Your task to perform on an android device: Open Chrome and go to settings Image 0: 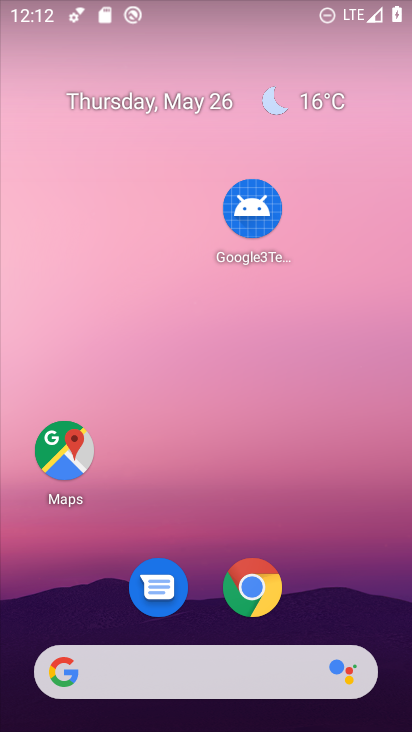
Step 0: click (206, 48)
Your task to perform on an android device: Open Chrome and go to settings Image 1: 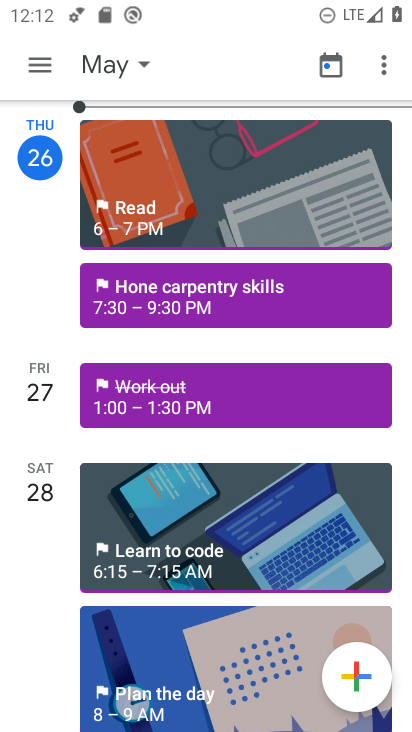
Step 1: press home button
Your task to perform on an android device: Open Chrome and go to settings Image 2: 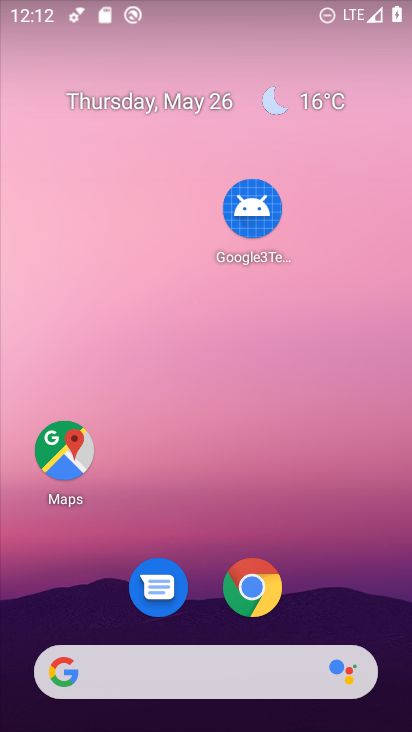
Step 2: click (240, 593)
Your task to perform on an android device: Open Chrome and go to settings Image 3: 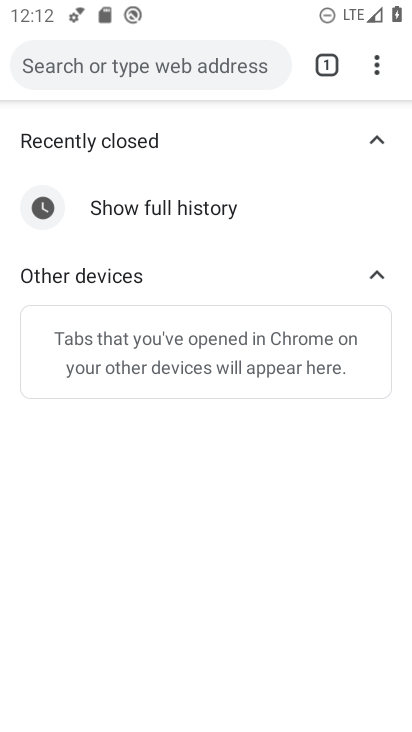
Step 3: task complete